Your task to perform on an android device: toggle improve location accuracy Image 0: 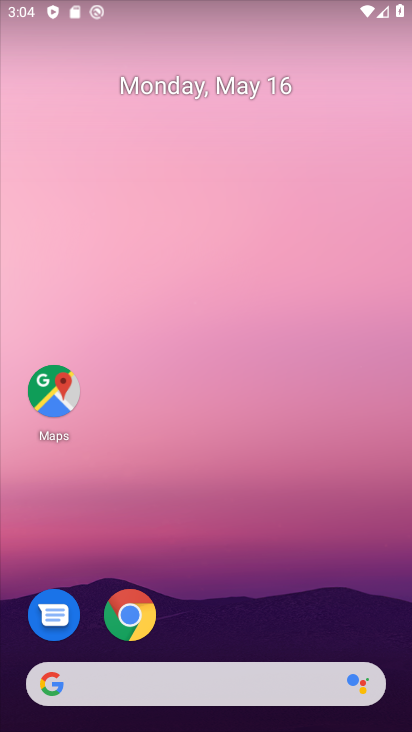
Step 0: drag from (278, 627) to (307, 74)
Your task to perform on an android device: toggle improve location accuracy Image 1: 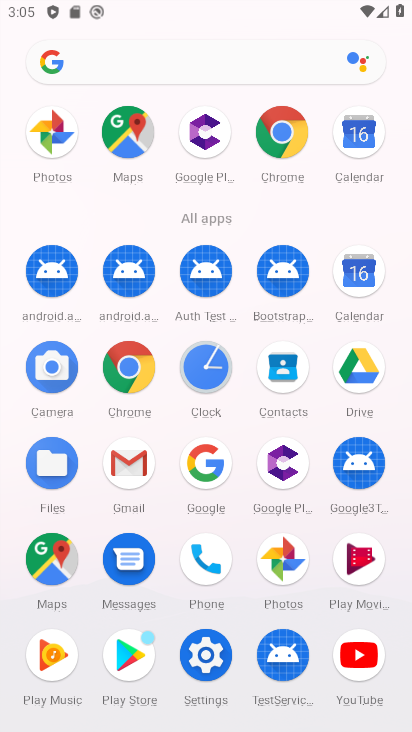
Step 1: click (204, 644)
Your task to perform on an android device: toggle improve location accuracy Image 2: 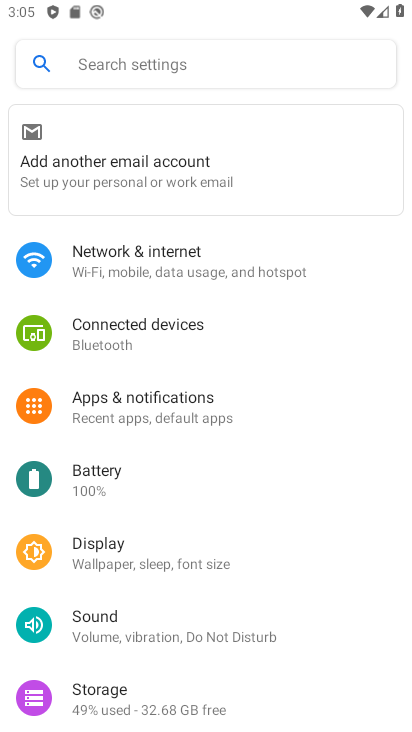
Step 2: drag from (218, 602) to (244, 212)
Your task to perform on an android device: toggle improve location accuracy Image 3: 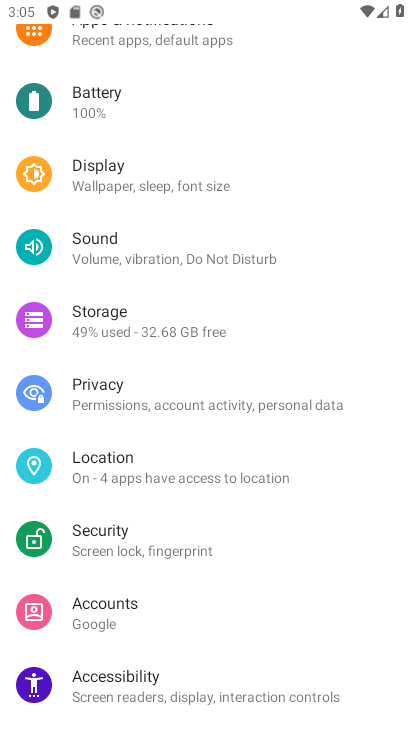
Step 3: click (176, 478)
Your task to perform on an android device: toggle improve location accuracy Image 4: 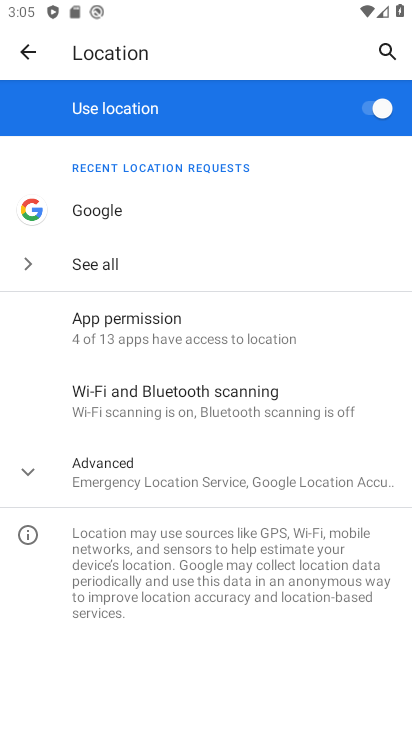
Step 4: click (25, 468)
Your task to perform on an android device: toggle improve location accuracy Image 5: 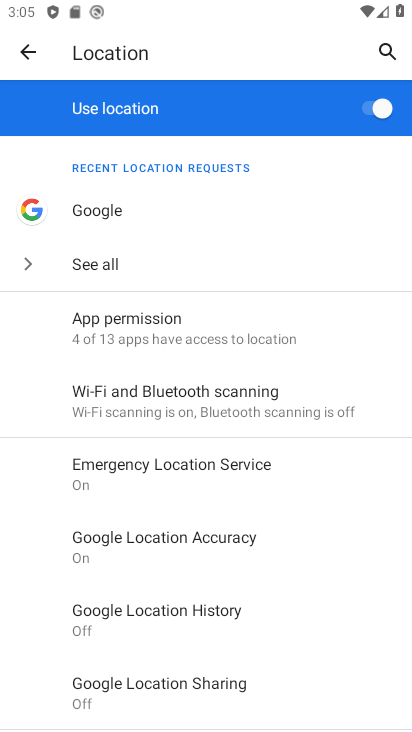
Step 5: click (170, 548)
Your task to perform on an android device: toggle improve location accuracy Image 6: 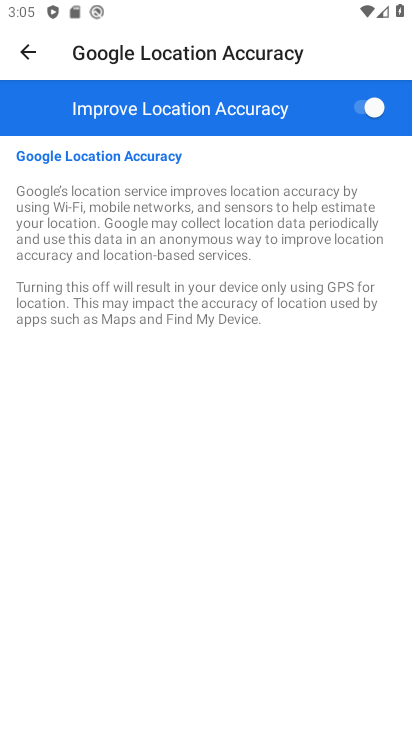
Step 6: click (362, 113)
Your task to perform on an android device: toggle improve location accuracy Image 7: 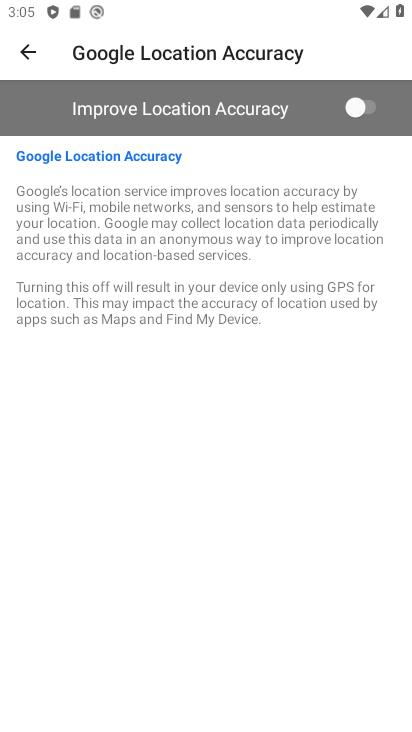
Step 7: task complete